Your task to perform on an android device: Go to Reddit.com Image 0: 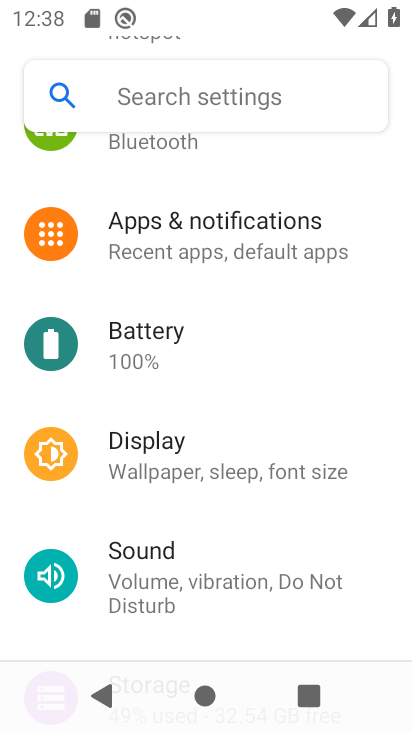
Step 0: press home button
Your task to perform on an android device: Go to Reddit.com Image 1: 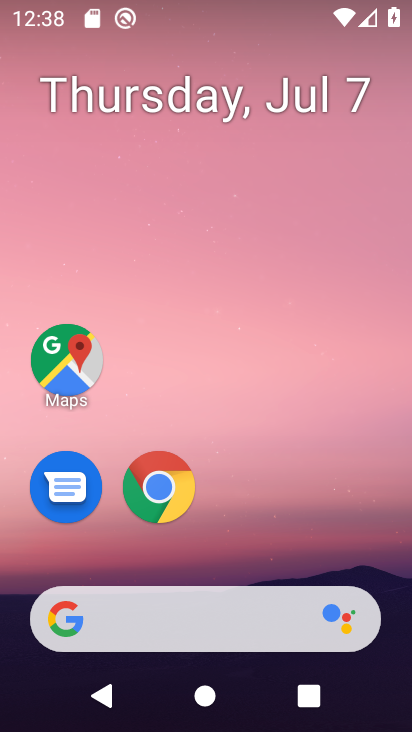
Step 1: drag from (350, 507) to (387, 146)
Your task to perform on an android device: Go to Reddit.com Image 2: 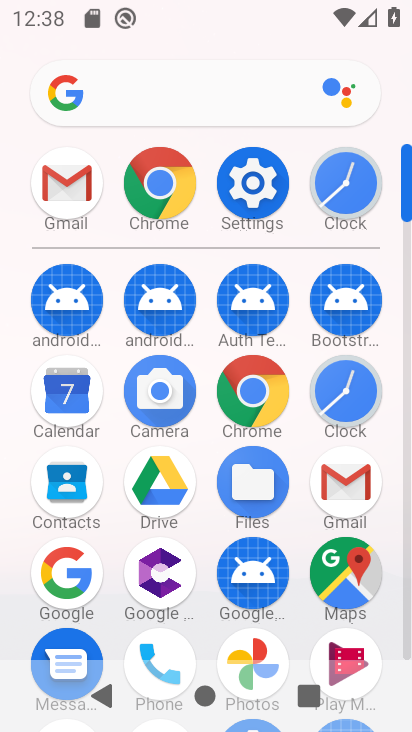
Step 2: click (271, 398)
Your task to perform on an android device: Go to Reddit.com Image 3: 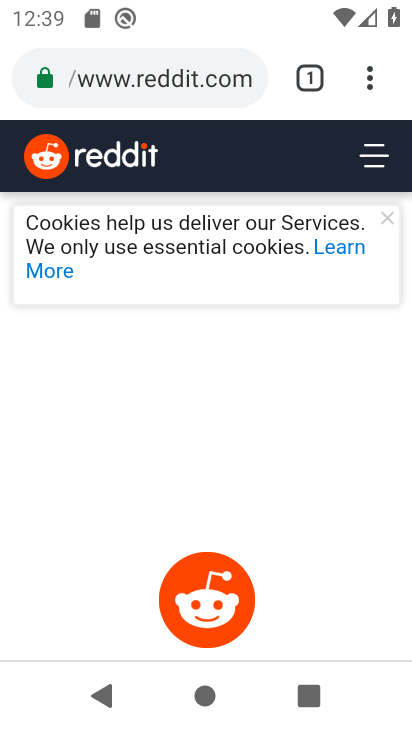
Step 3: task complete